Your task to perform on an android device: turn off notifications settings in the gmail app Image 0: 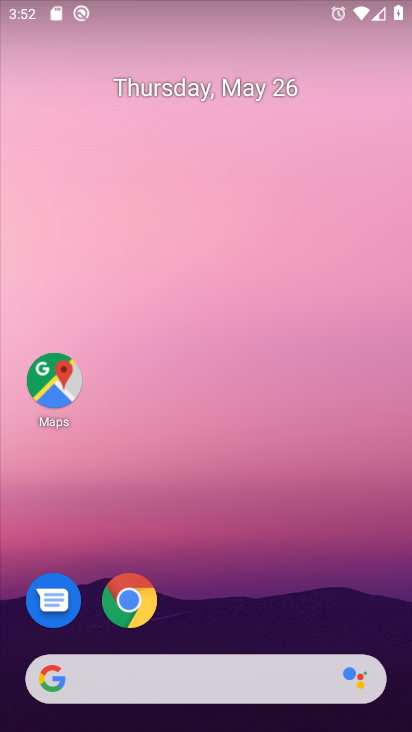
Step 0: drag from (201, 646) to (303, 7)
Your task to perform on an android device: turn off notifications settings in the gmail app Image 1: 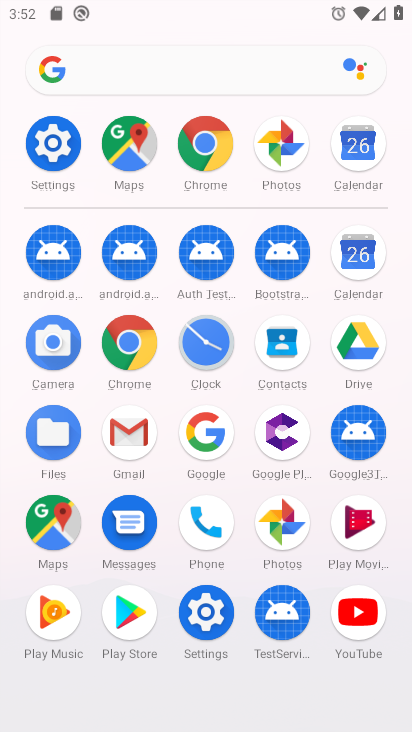
Step 1: click (133, 424)
Your task to perform on an android device: turn off notifications settings in the gmail app Image 2: 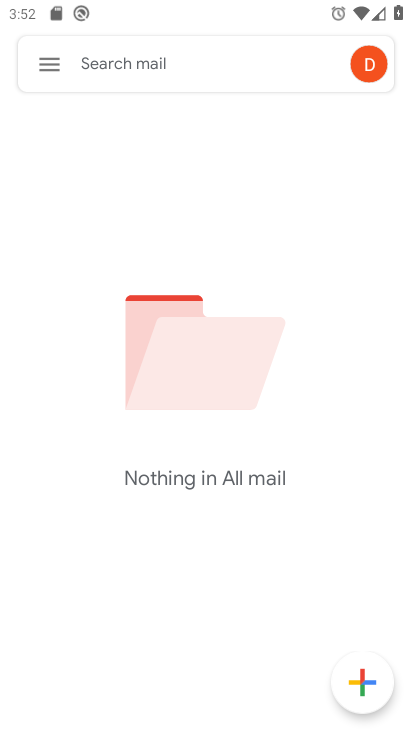
Step 2: click (40, 65)
Your task to perform on an android device: turn off notifications settings in the gmail app Image 3: 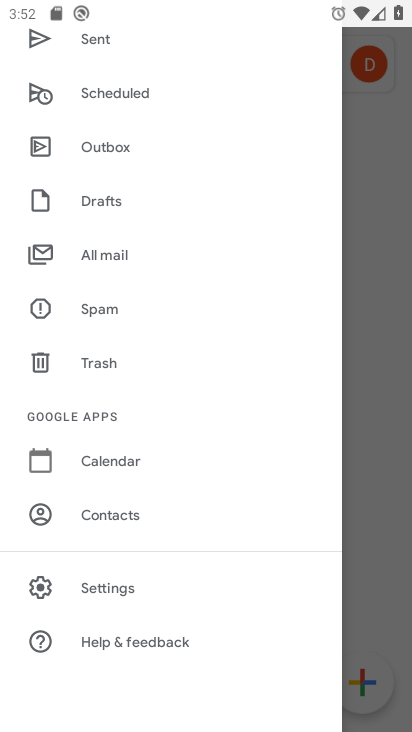
Step 3: click (117, 594)
Your task to perform on an android device: turn off notifications settings in the gmail app Image 4: 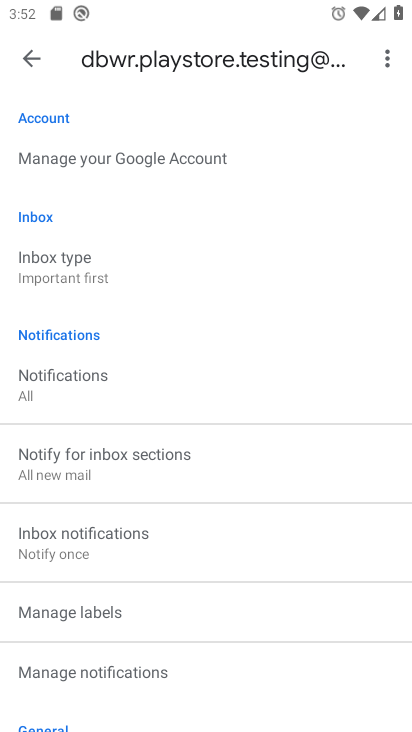
Step 4: click (31, 58)
Your task to perform on an android device: turn off notifications settings in the gmail app Image 5: 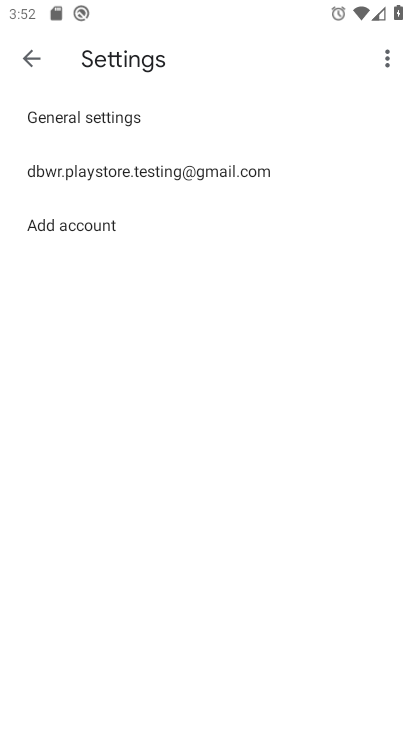
Step 5: click (114, 118)
Your task to perform on an android device: turn off notifications settings in the gmail app Image 6: 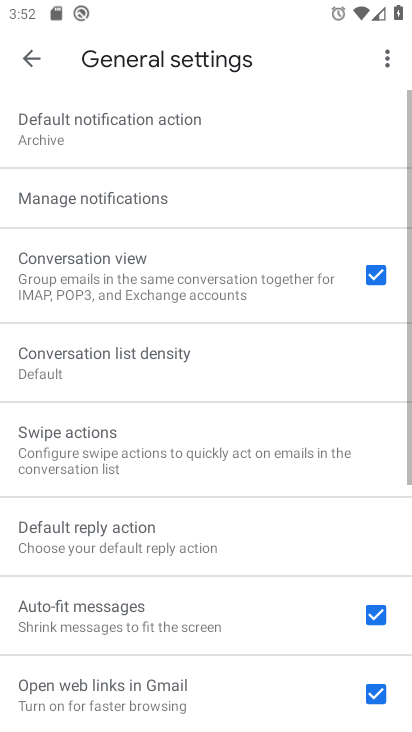
Step 6: click (164, 197)
Your task to perform on an android device: turn off notifications settings in the gmail app Image 7: 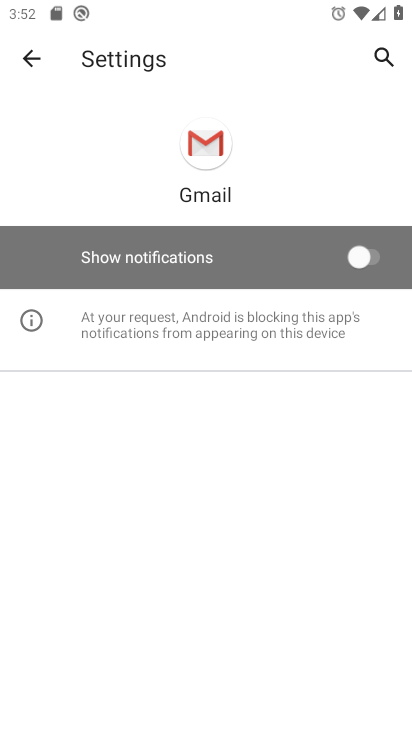
Step 7: task complete